Your task to perform on an android device: toggle notifications settings in the gmail app Image 0: 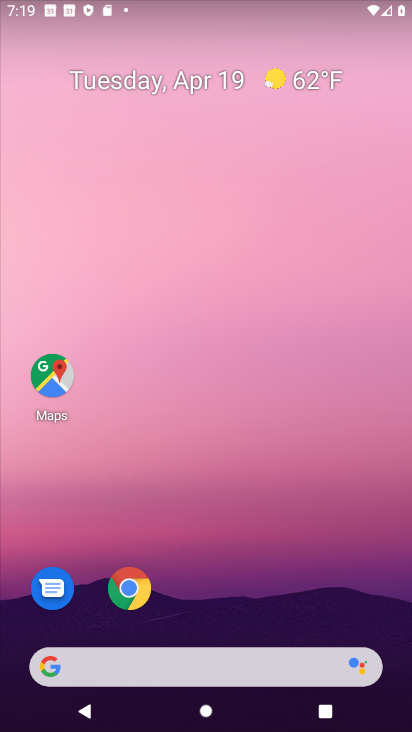
Step 0: drag from (224, 603) to (198, 40)
Your task to perform on an android device: toggle notifications settings in the gmail app Image 1: 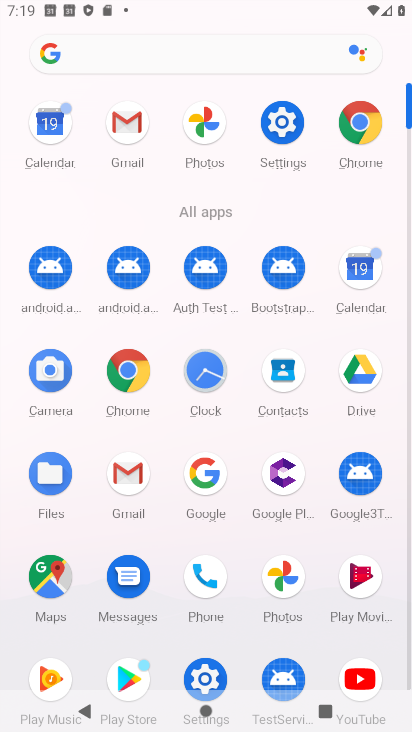
Step 1: click (130, 127)
Your task to perform on an android device: toggle notifications settings in the gmail app Image 2: 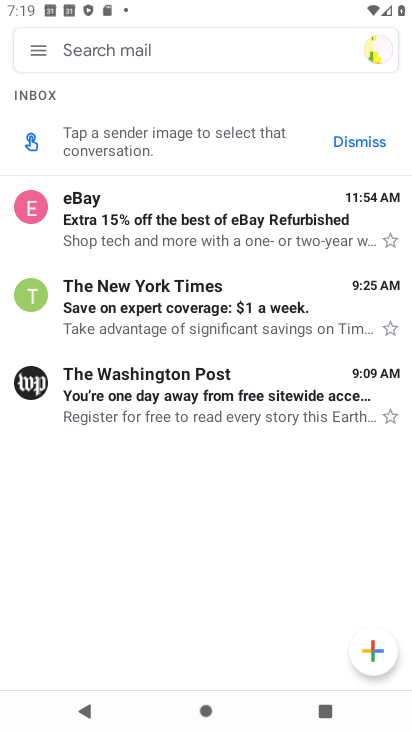
Step 2: click (37, 52)
Your task to perform on an android device: toggle notifications settings in the gmail app Image 3: 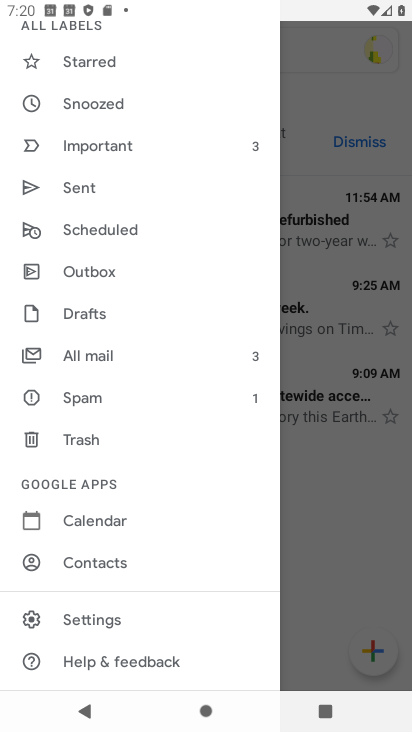
Step 3: click (86, 620)
Your task to perform on an android device: toggle notifications settings in the gmail app Image 4: 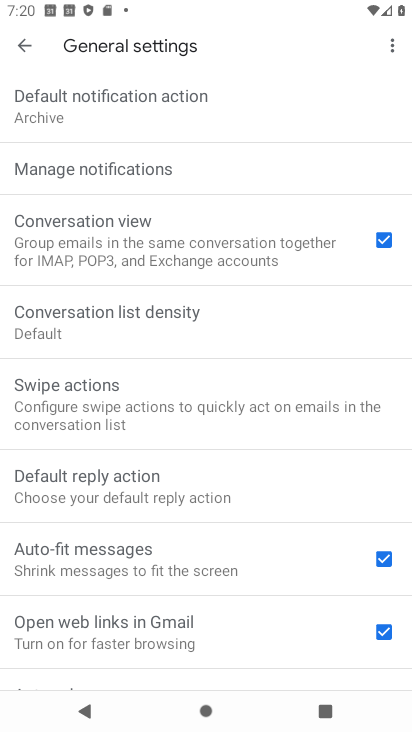
Step 4: click (118, 169)
Your task to perform on an android device: toggle notifications settings in the gmail app Image 5: 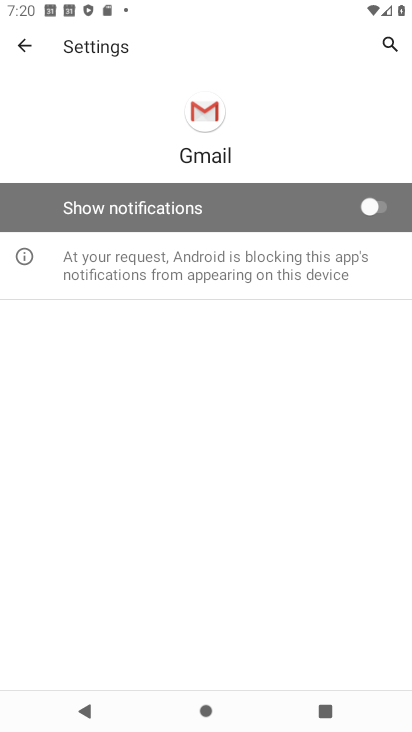
Step 5: click (369, 208)
Your task to perform on an android device: toggle notifications settings in the gmail app Image 6: 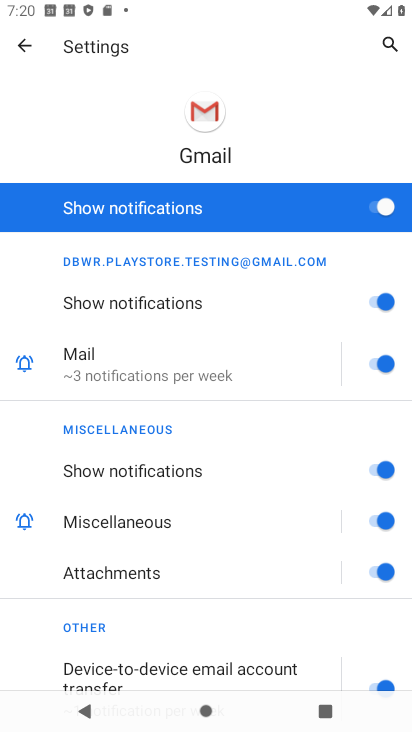
Step 6: task complete